Your task to perform on an android device: Open Google Chrome and open the bookmarks view Image 0: 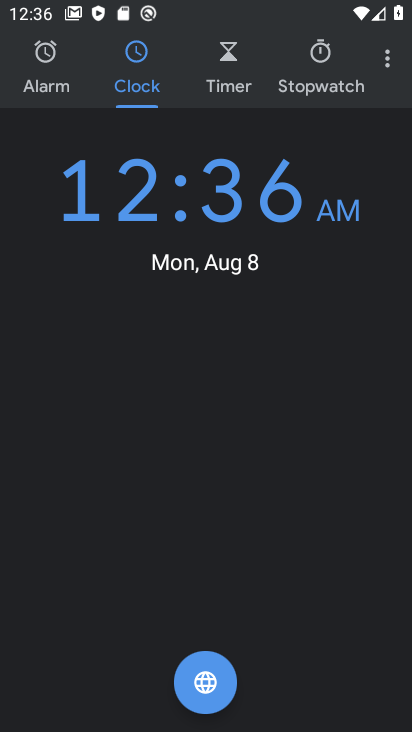
Step 0: press home button
Your task to perform on an android device: Open Google Chrome and open the bookmarks view Image 1: 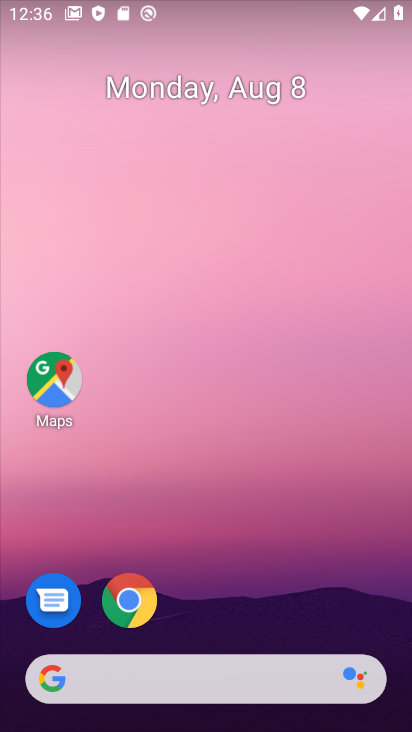
Step 1: click (143, 613)
Your task to perform on an android device: Open Google Chrome and open the bookmarks view Image 2: 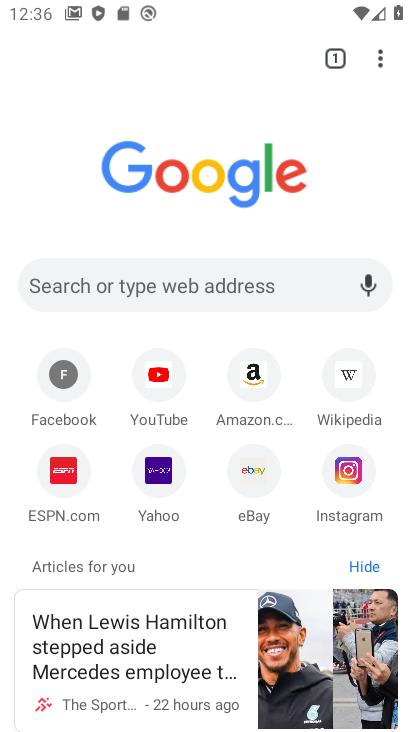
Step 2: task complete